Your task to perform on an android device: turn on airplane mode Image 0: 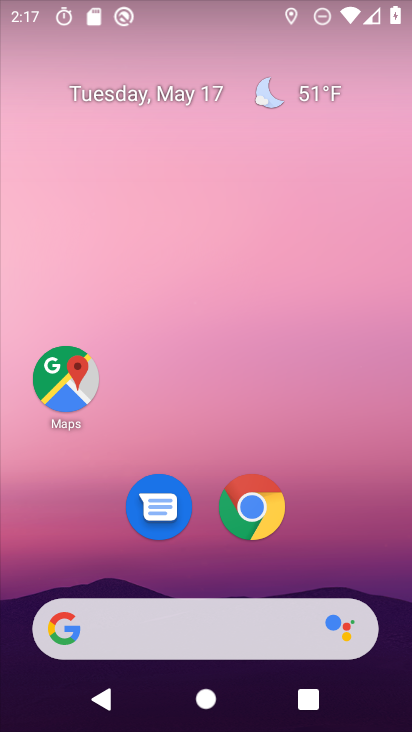
Step 0: drag from (239, 561) to (210, 98)
Your task to perform on an android device: turn on airplane mode Image 1: 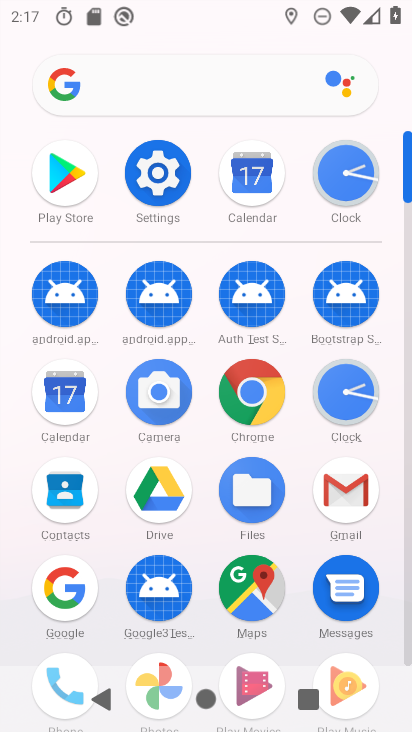
Step 1: click (162, 172)
Your task to perform on an android device: turn on airplane mode Image 2: 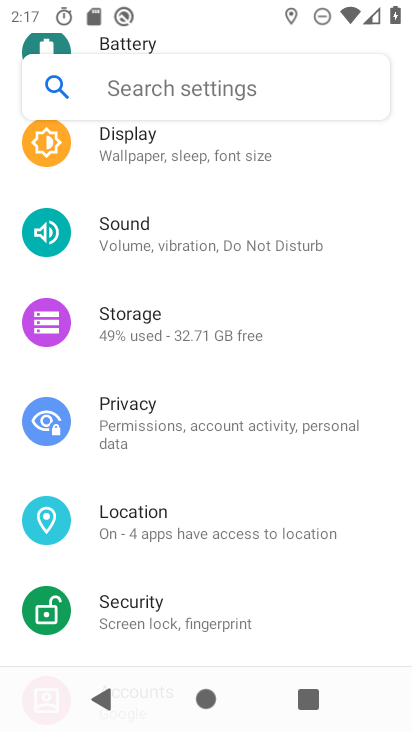
Step 2: drag from (203, 256) to (212, 537)
Your task to perform on an android device: turn on airplane mode Image 3: 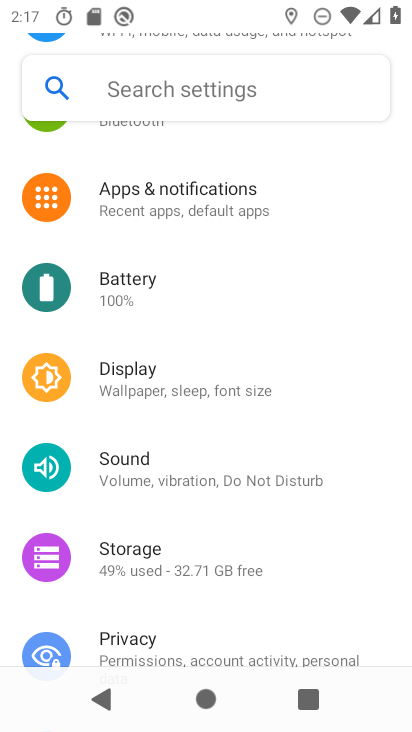
Step 3: drag from (189, 210) to (203, 545)
Your task to perform on an android device: turn on airplane mode Image 4: 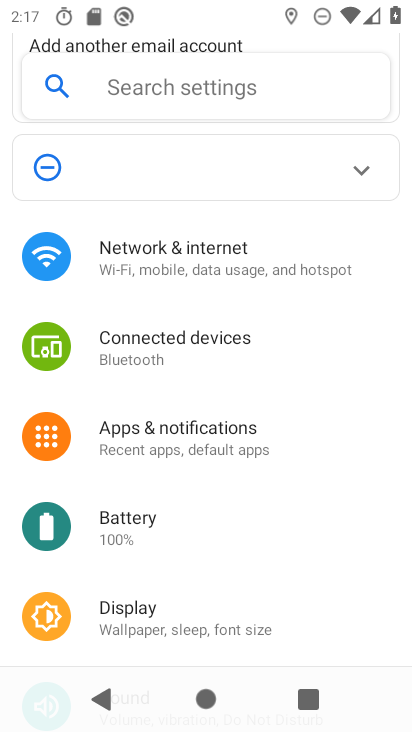
Step 4: click (160, 250)
Your task to perform on an android device: turn on airplane mode Image 5: 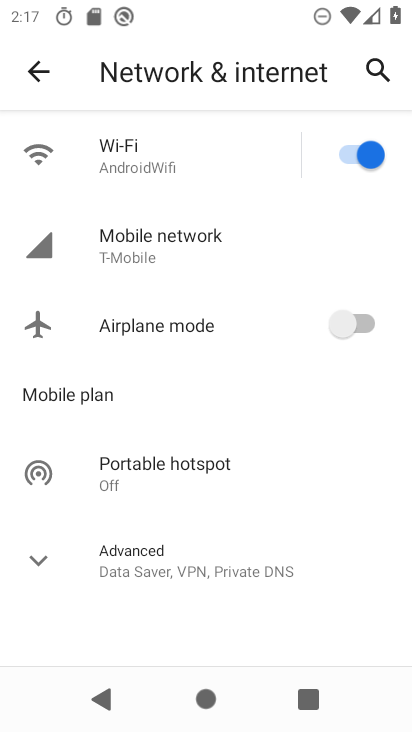
Step 5: click (344, 317)
Your task to perform on an android device: turn on airplane mode Image 6: 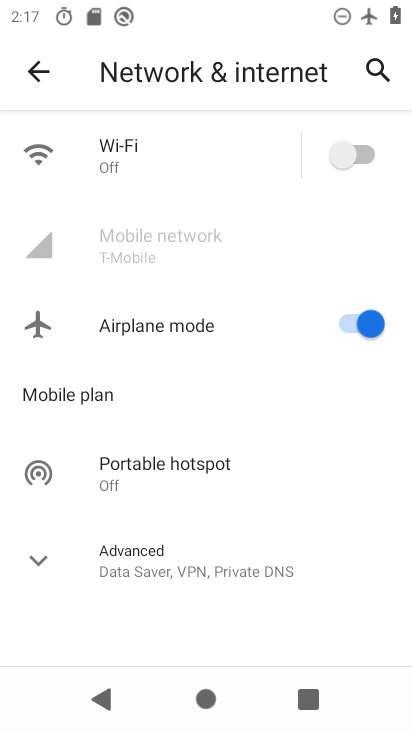
Step 6: task complete